Your task to perform on an android device: open wifi settings Image 0: 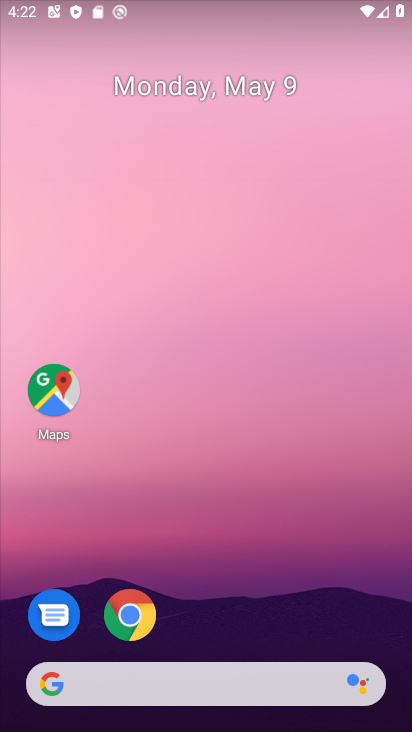
Step 0: drag from (230, 580) to (298, 151)
Your task to perform on an android device: open wifi settings Image 1: 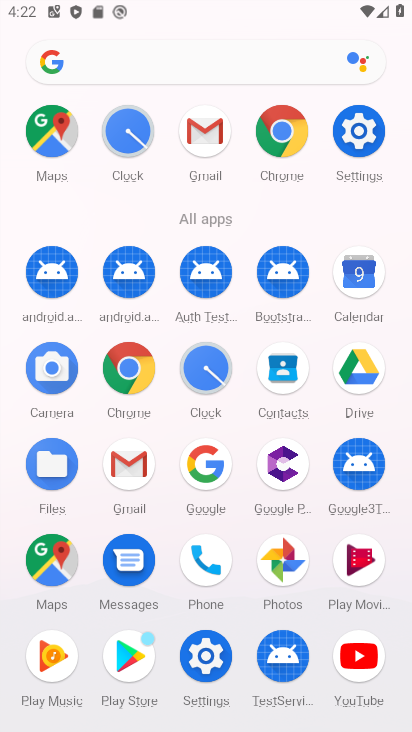
Step 1: click (212, 655)
Your task to perform on an android device: open wifi settings Image 2: 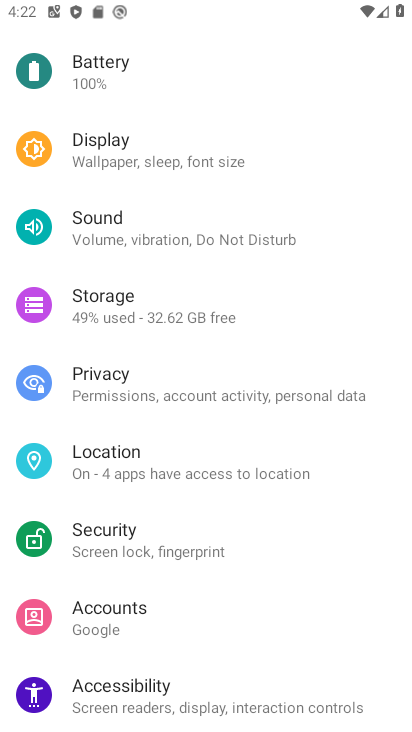
Step 2: drag from (189, 93) to (91, 486)
Your task to perform on an android device: open wifi settings Image 3: 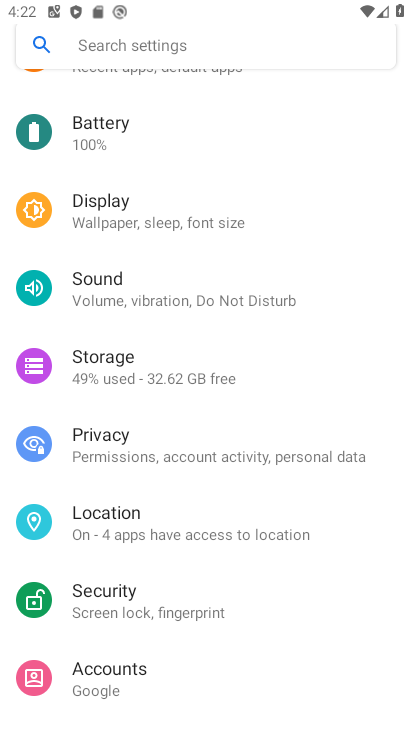
Step 3: drag from (202, 116) to (160, 337)
Your task to perform on an android device: open wifi settings Image 4: 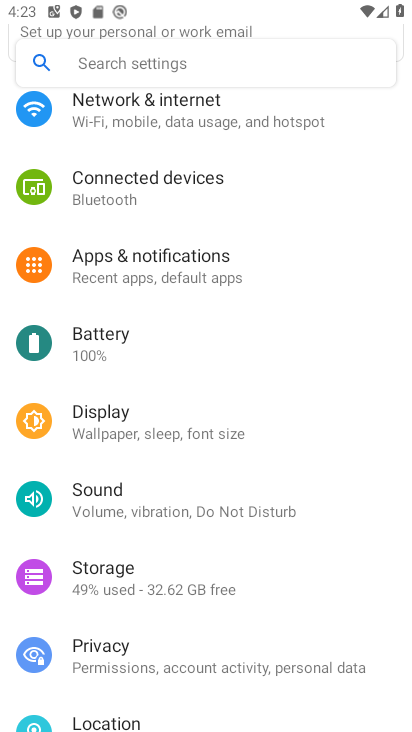
Step 4: click (223, 122)
Your task to perform on an android device: open wifi settings Image 5: 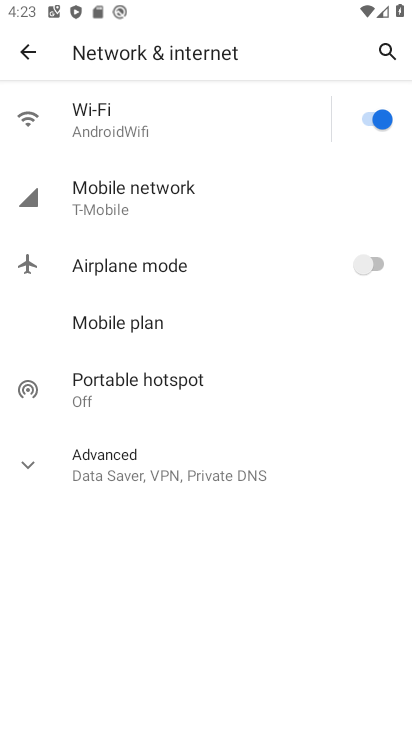
Step 5: click (220, 130)
Your task to perform on an android device: open wifi settings Image 6: 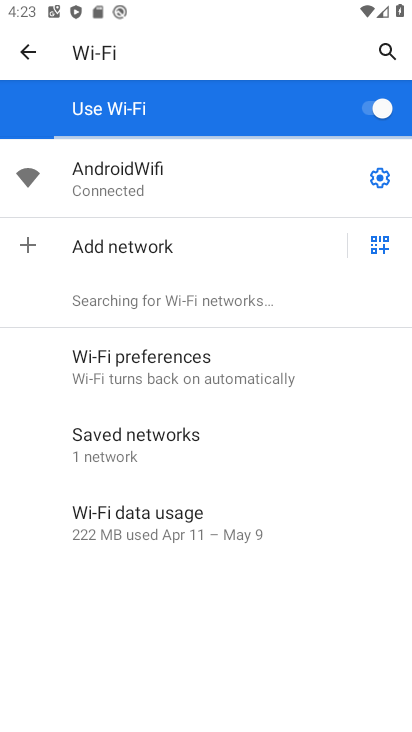
Step 6: task complete